Your task to perform on an android device: Go to network settings Image 0: 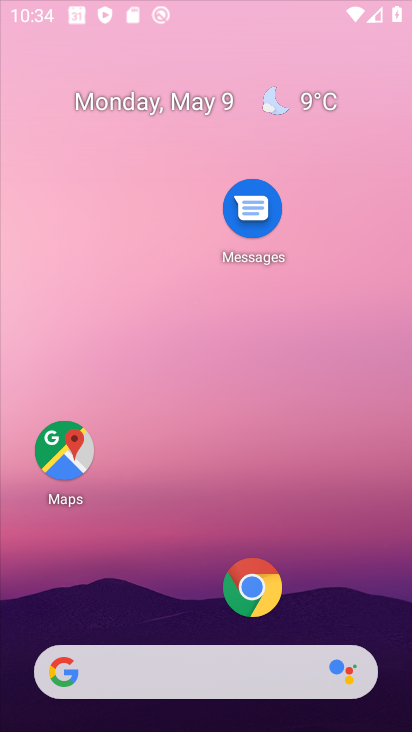
Step 0: click (110, 221)
Your task to perform on an android device: Go to network settings Image 1: 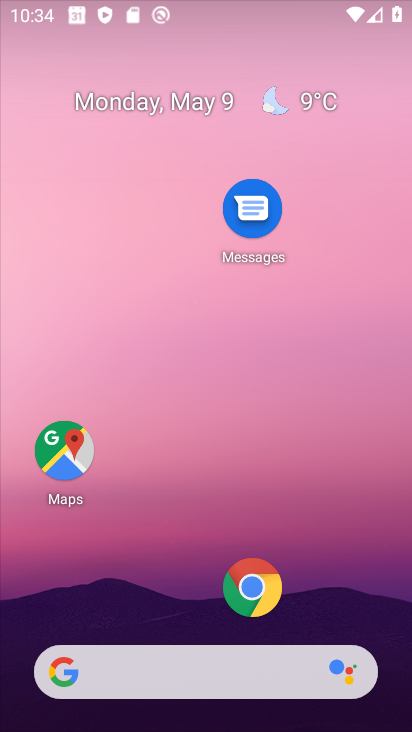
Step 1: drag from (162, 634) to (181, 275)
Your task to perform on an android device: Go to network settings Image 2: 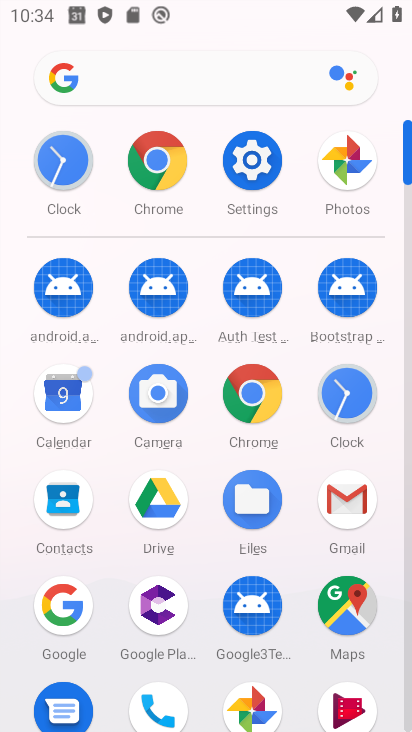
Step 2: click (241, 172)
Your task to perform on an android device: Go to network settings Image 3: 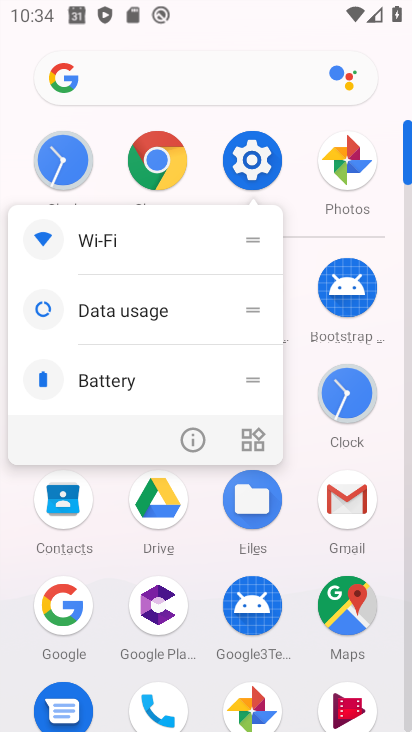
Step 3: click (189, 447)
Your task to perform on an android device: Go to network settings Image 4: 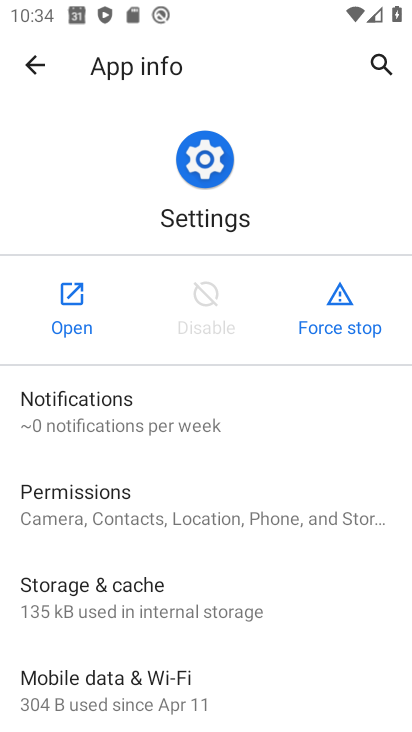
Step 4: click (69, 305)
Your task to perform on an android device: Go to network settings Image 5: 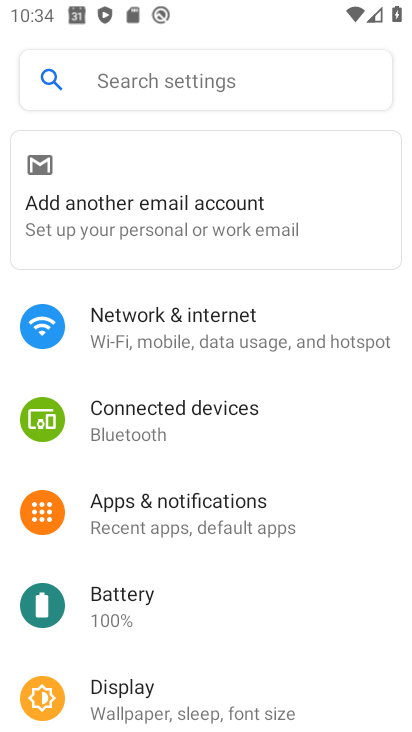
Step 5: click (152, 314)
Your task to perform on an android device: Go to network settings Image 6: 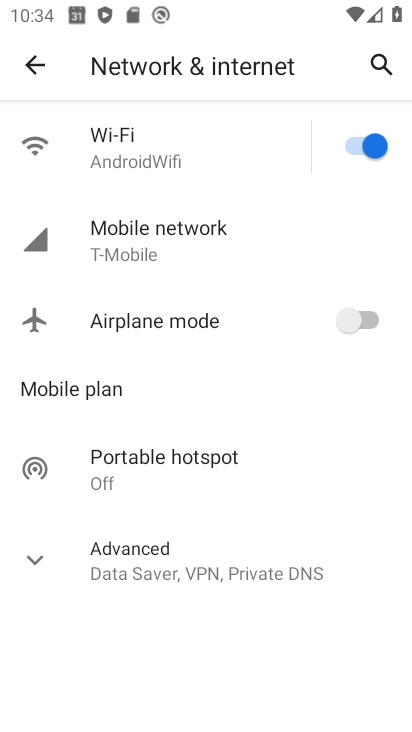
Step 6: task complete